Your task to perform on an android device: Open Chrome and go to settings Image 0: 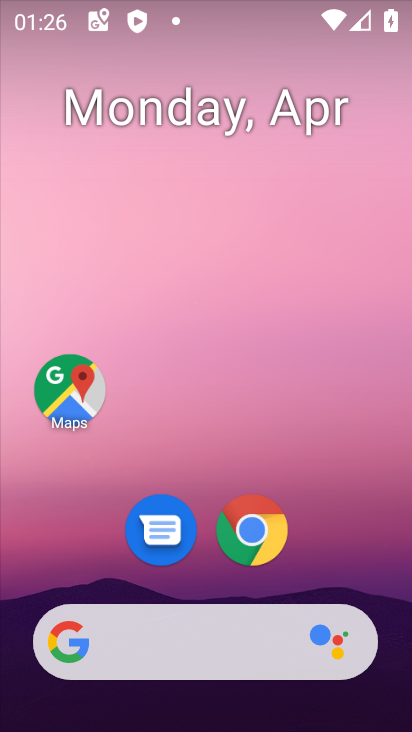
Step 0: click (253, 530)
Your task to perform on an android device: Open Chrome and go to settings Image 1: 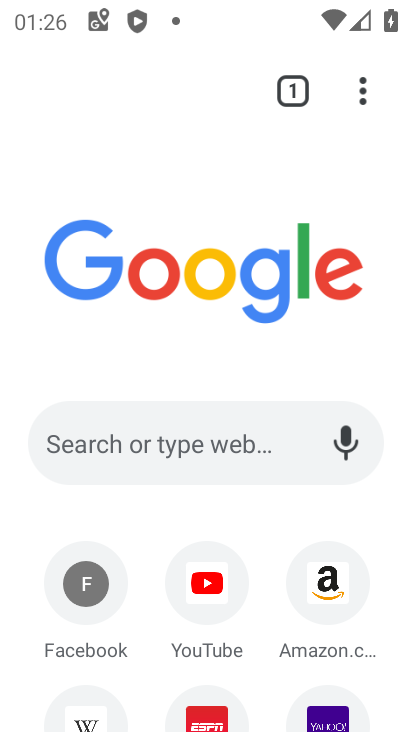
Step 1: click (360, 89)
Your task to perform on an android device: Open Chrome and go to settings Image 2: 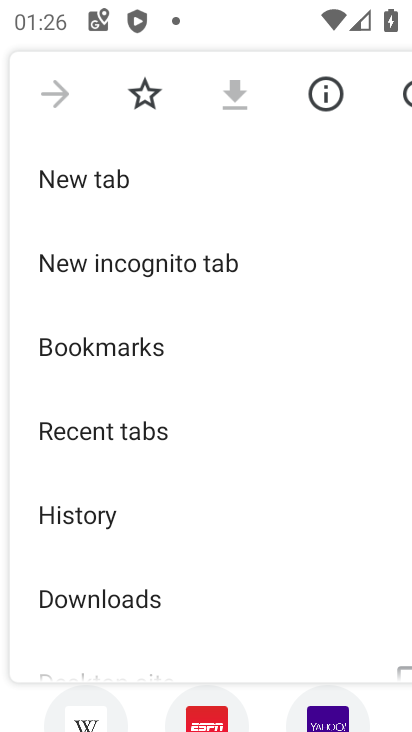
Step 2: drag from (185, 561) to (186, 203)
Your task to perform on an android device: Open Chrome and go to settings Image 3: 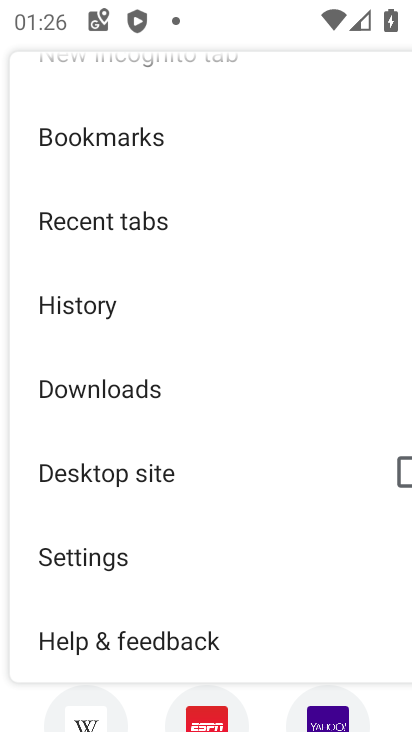
Step 3: click (102, 552)
Your task to perform on an android device: Open Chrome and go to settings Image 4: 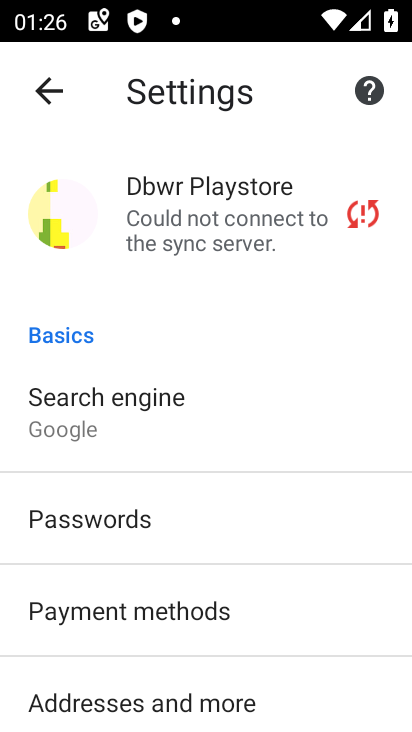
Step 4: task complete